Your task to perform on an android device: Go to Maps Image 0: 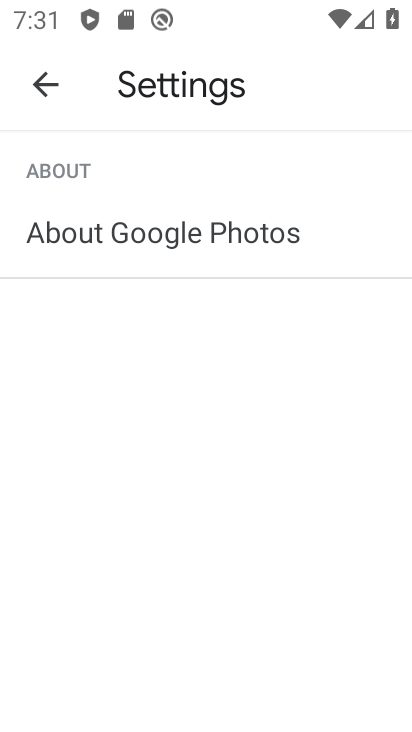
Step 0: press back button
Your task to perform on an android device: Go to Maps Image 1: 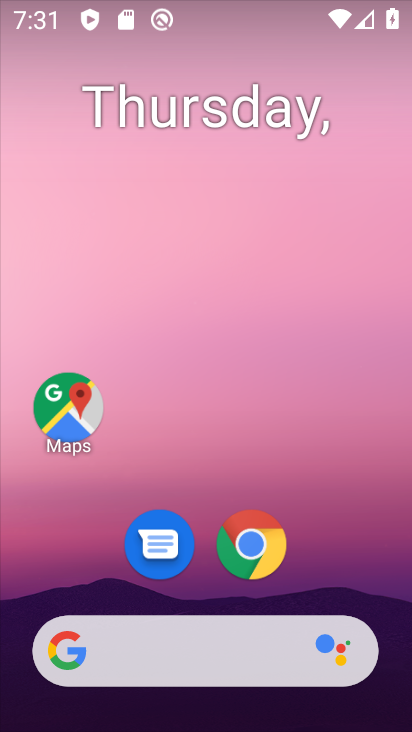
Step 1: click (65, 407)
Your task to perform on an android device: Go to Maps Image 2: 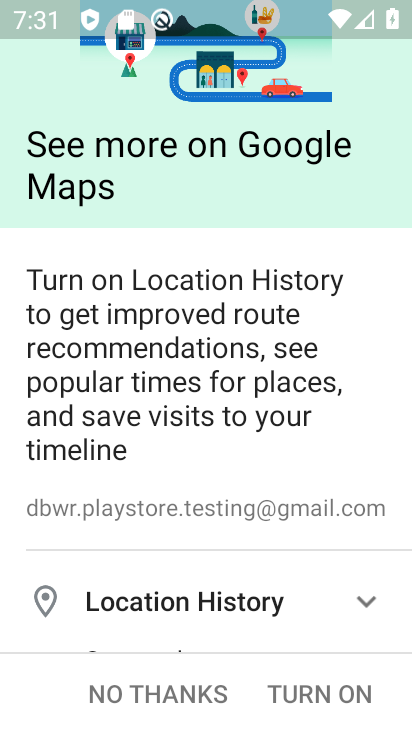
Step 2: click (205, 599)
Your task to perform on an android device: Go to Maps Image 3: 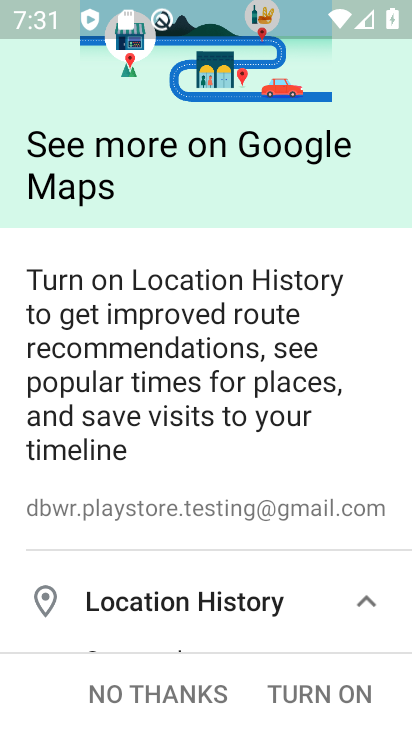
Step 3: task complete